Your task to perform on an android device: change timer sound Image 0: 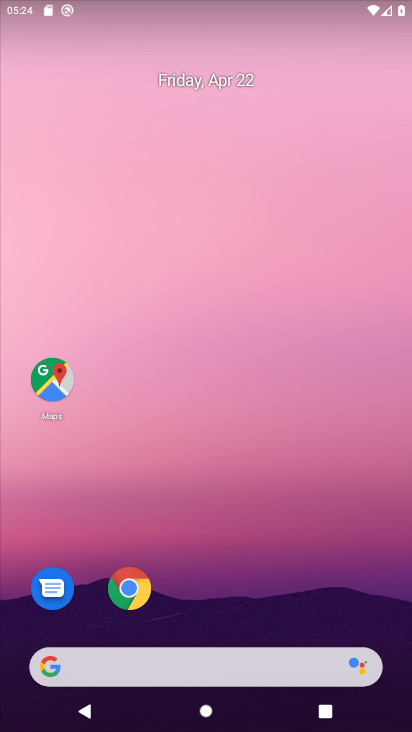
Step 0: drag from (306, 438) to (299, 29)
Your task to perform on an android device: change timer sound Image 1: 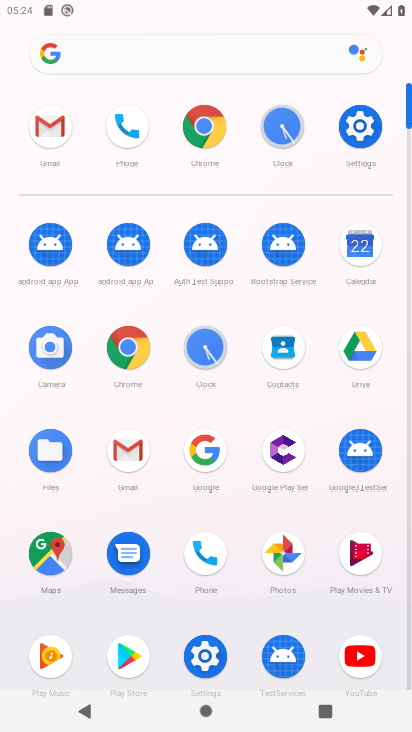
Step 1: click (357, 136)
Your task to perform on an android device: change timer sound Image 2: 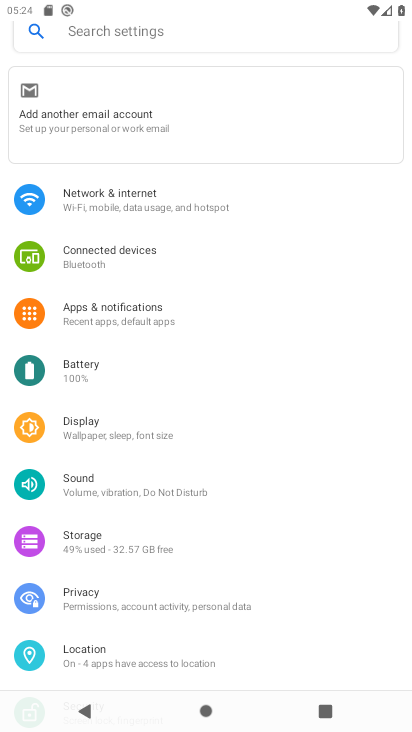
Step 2: press back button
Your task to perform on an android device: change timer sound Image 3: 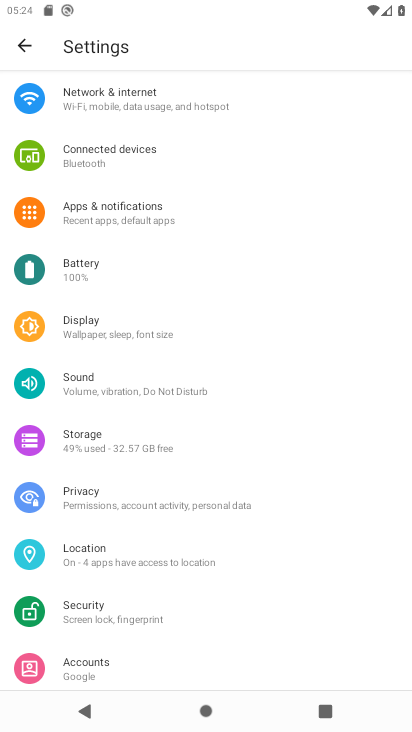
Step 3: press back button
Your task to perform on an android device: change timer sound Image 4: 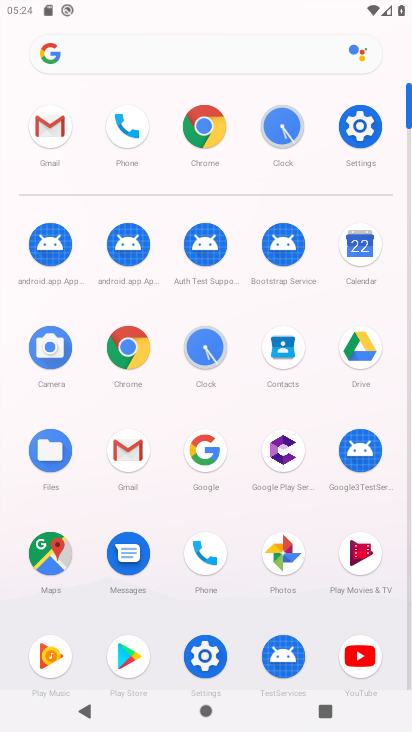
Step 4: click (221, 348)
Your task to perform on an android device: change timer sound Image 5: 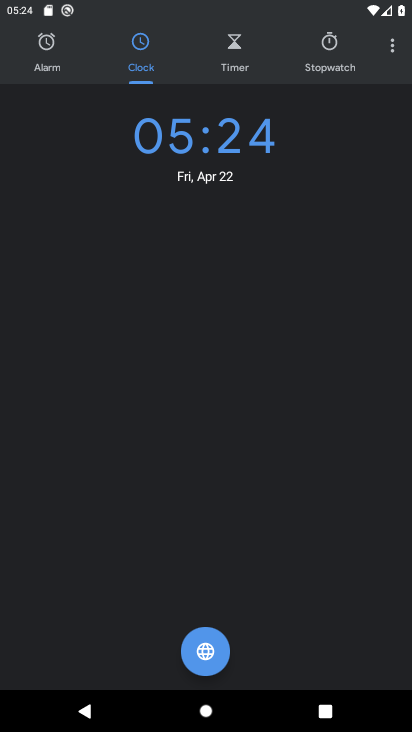
Step 5: click (393, 42)
Your task to perform on an android device: change timer sound Image 6: 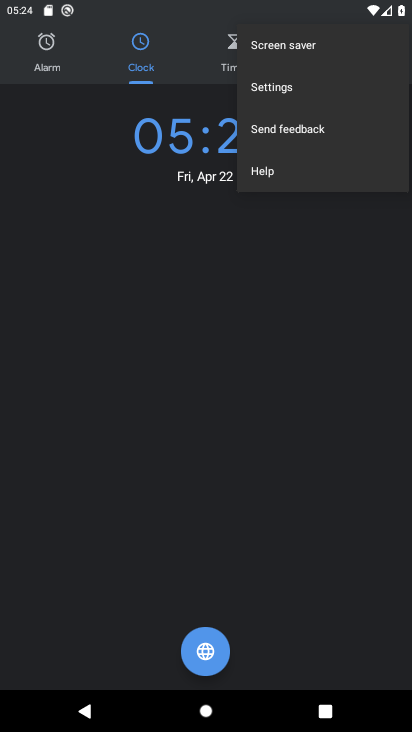
Step 6: click (278, 82)
Your task to perform on an android device: change timer sound Image 7: 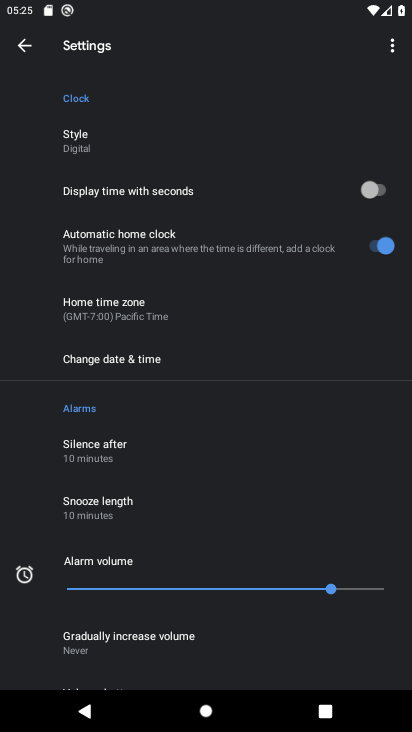
Step 7: drag from (231, 523) to (252, 194)
Your task to perform on an android device: change timer sound Image 8: 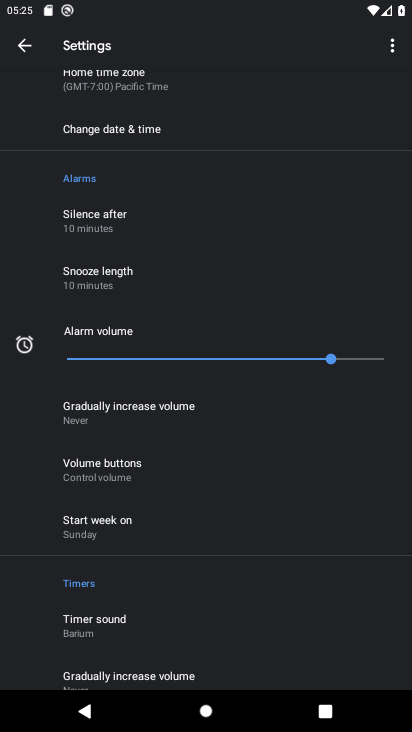
Step 8: click (69, 615)
Your task to perform on an android device: change timer sound Image 9: 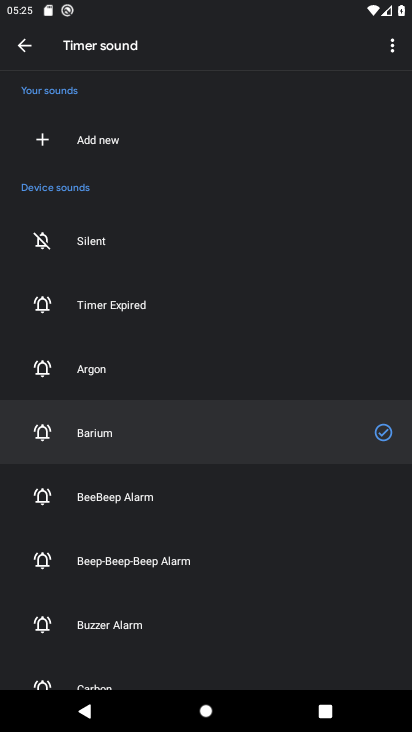
Step 9: click (131, 555)
Your task to perform on an android device: change timer sound Image 10: 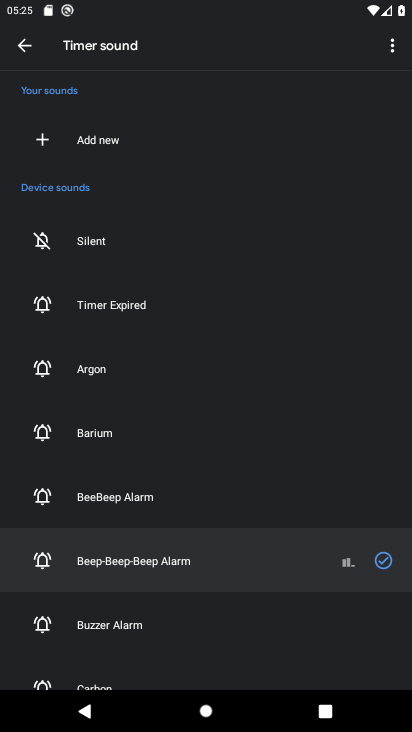
Step 10: task complete